Your task to perform on an android device: change the clock style Image 0: 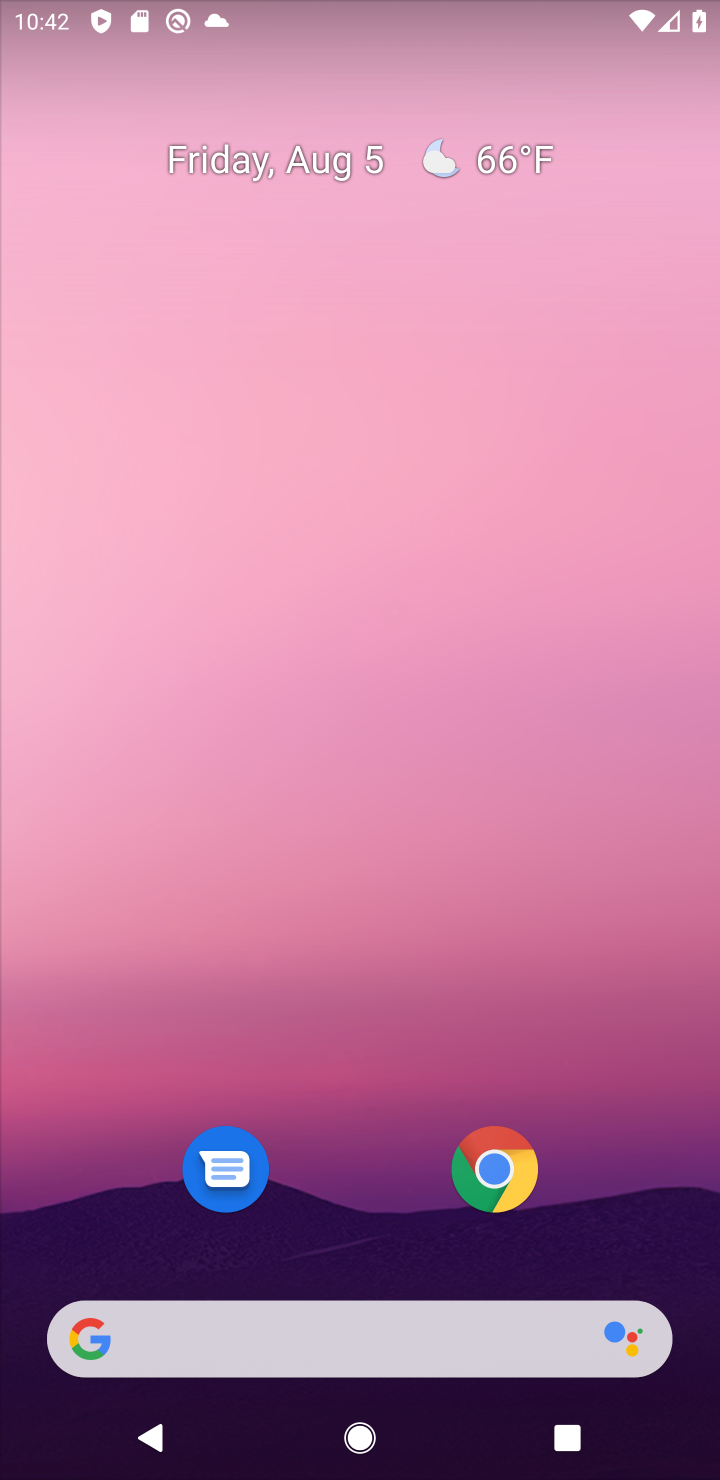
Step 0: drag from (638, 1146) to (556, 226)
Your task to perform on an android device: change the clock style Image 1: 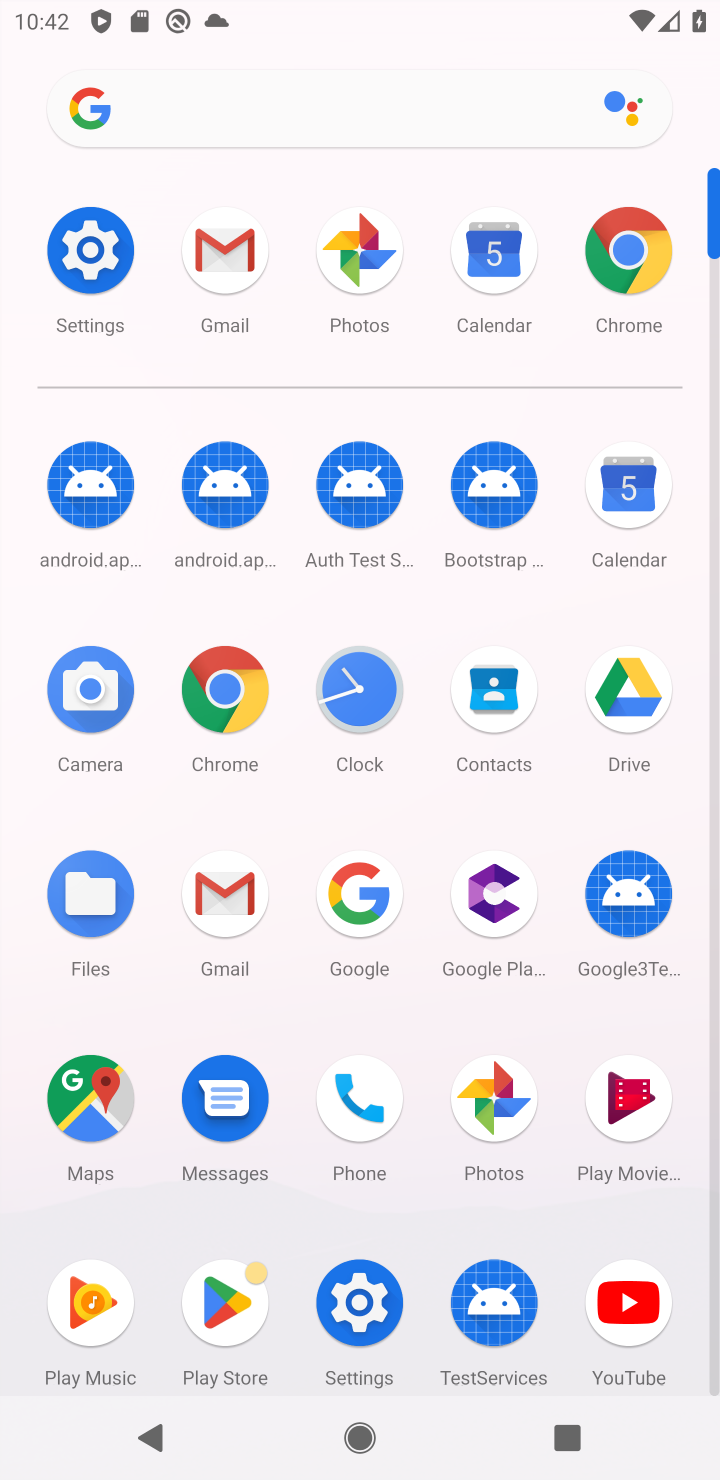
Step 1: click (355, 686)
Your task to perform on an android device: change the clock style Image 2: 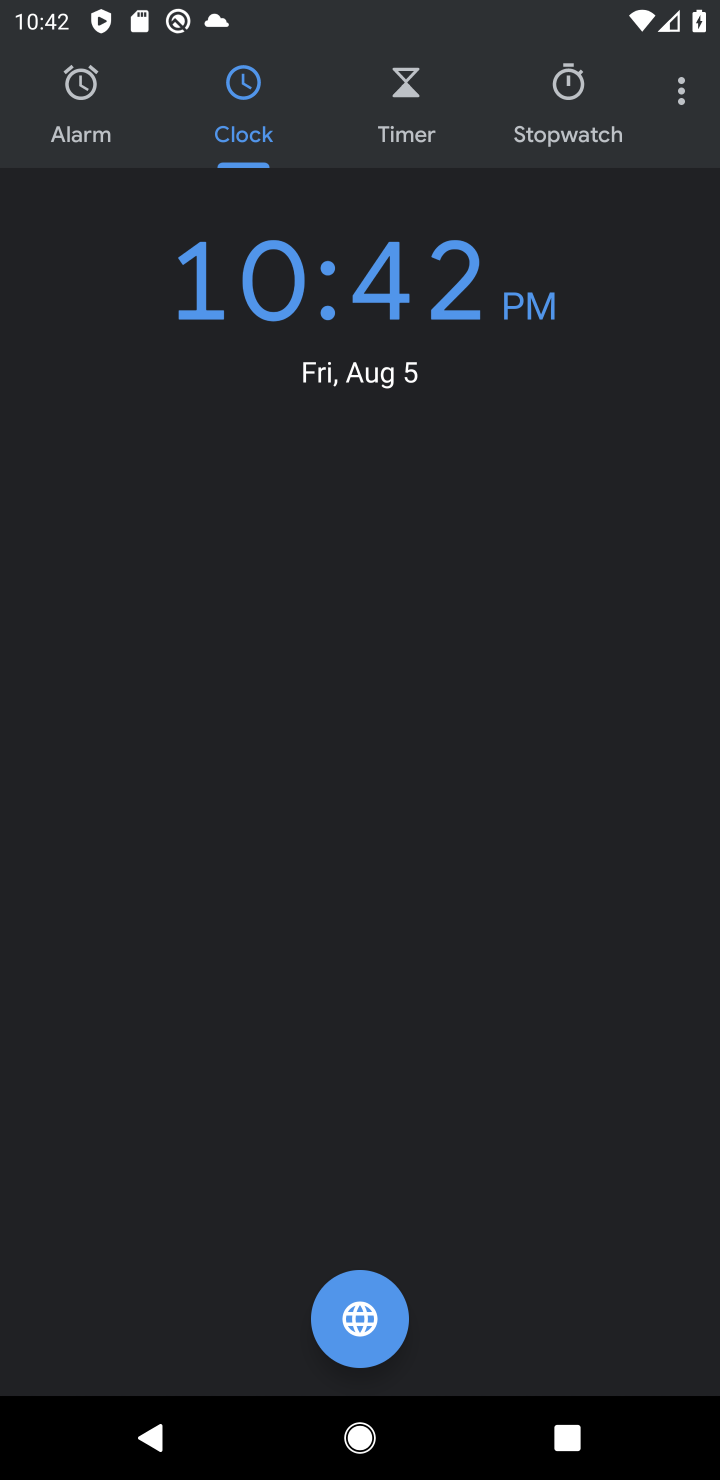
Step 2: click (669, 109)
Your task to perform on an android device: change the clock style Image 3: 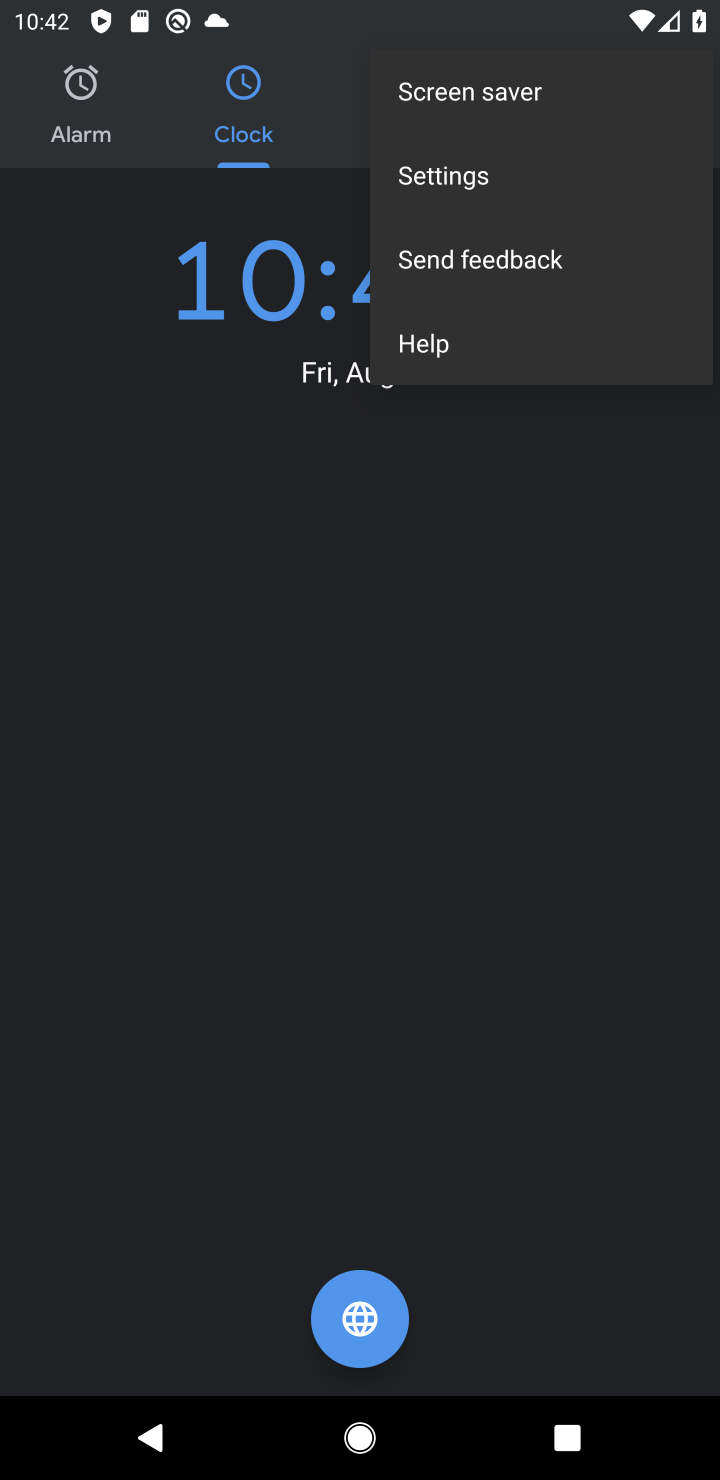
Step 3: click (408, 175)
Your task to perform on an android device: change the clock style Image 4: 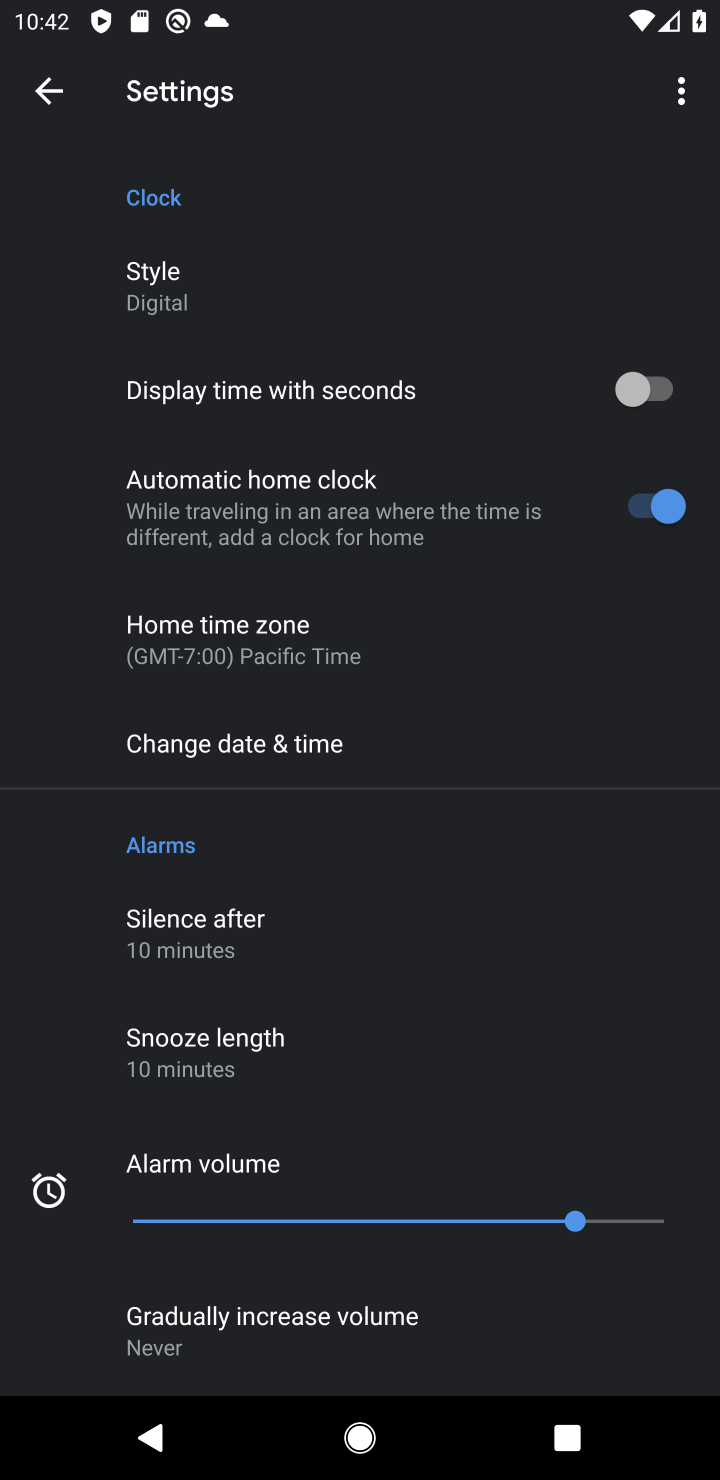
Step 4: click (180, 292)
Your task to perform on an android device: change the clock style Image 5: 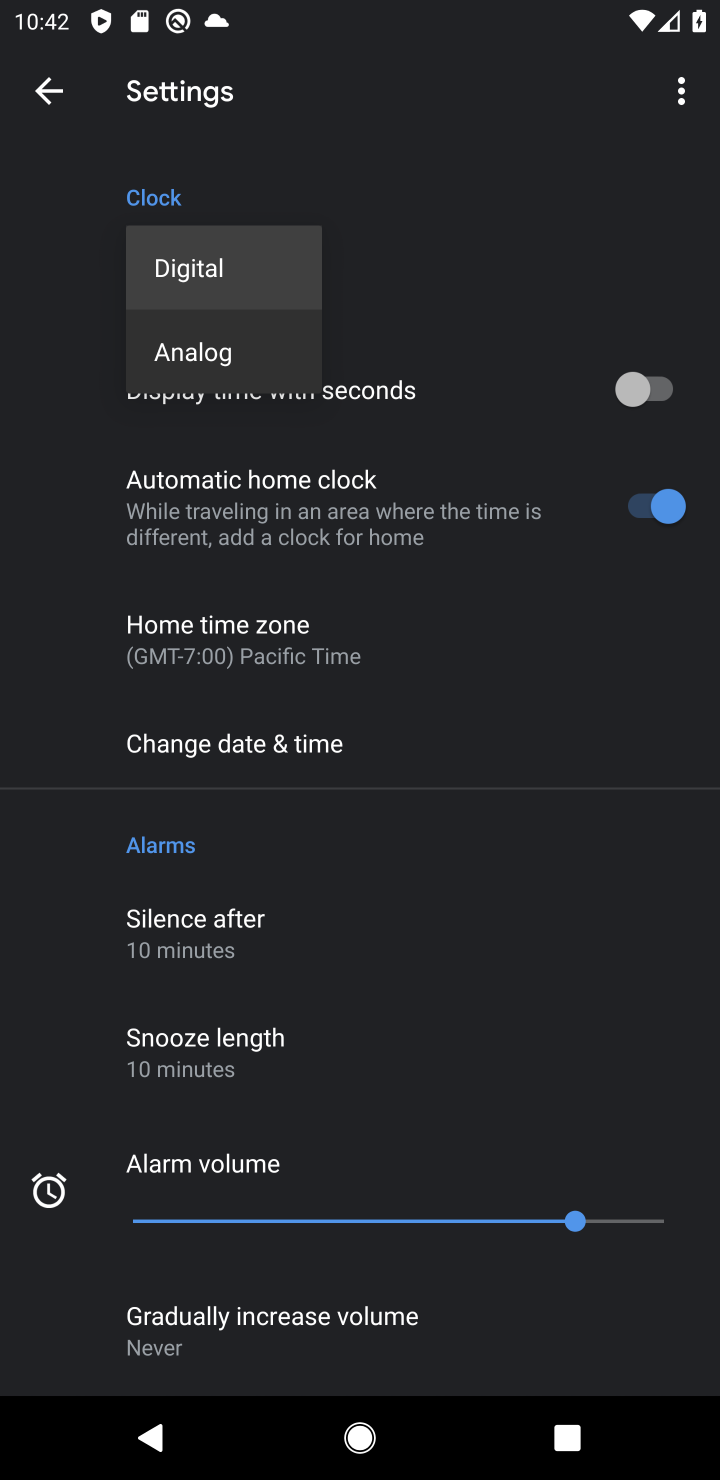
Step 5: click (201, 348)
Your task to perform on an android device: change the clock style Image 6: 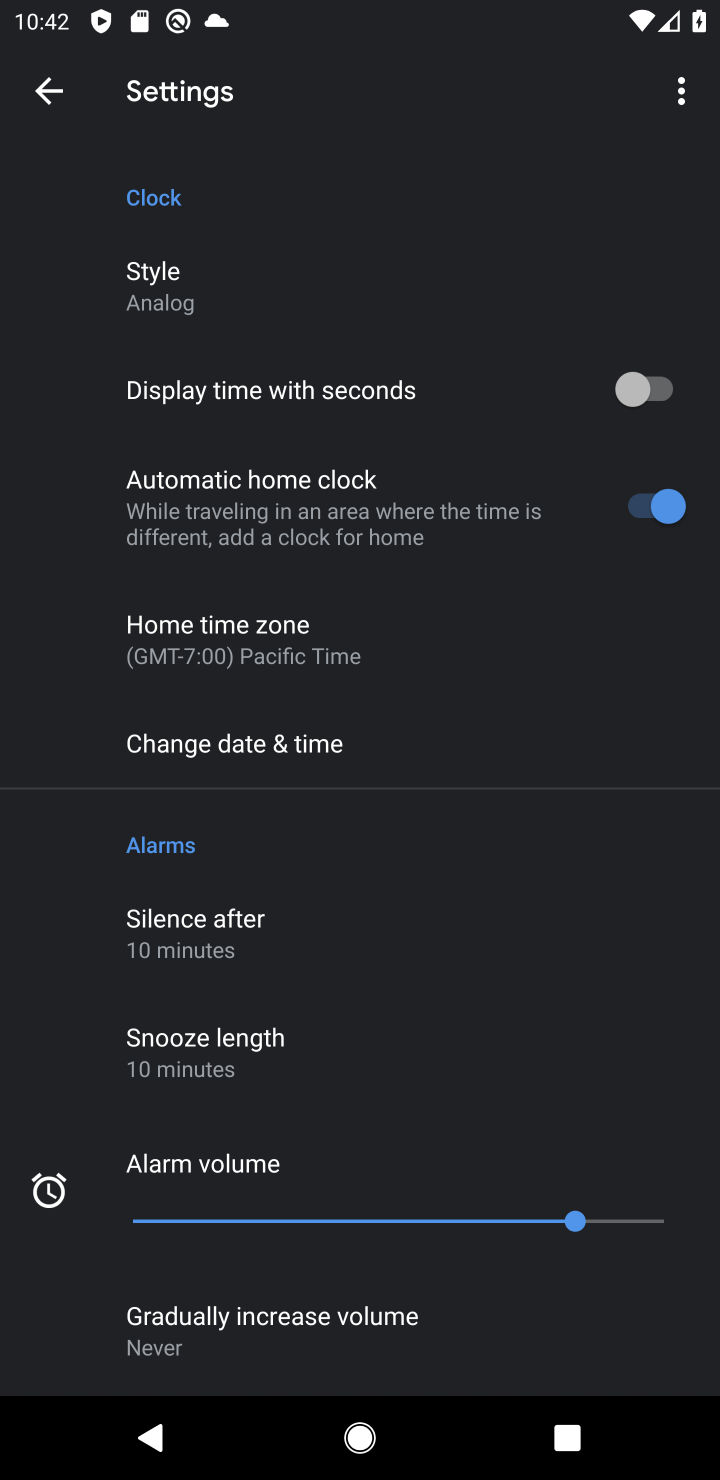
Step 6: task complete